Your task to perform on an android device: add a label to a message in the gmail app Image 0: 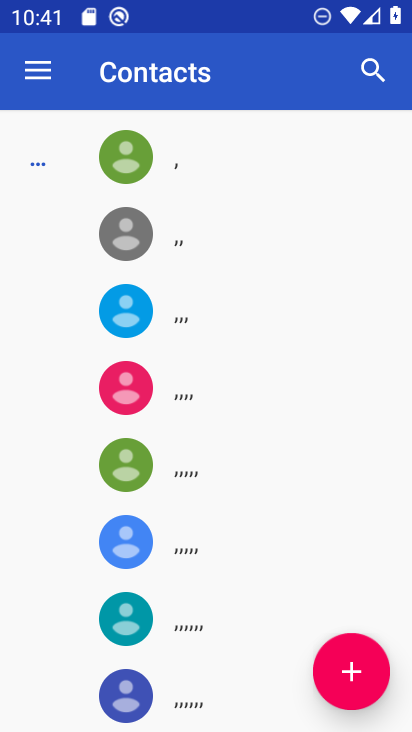
Step 0: press home button
Your task to perform on an android device: add a label to a message in the gmail app Image 1: 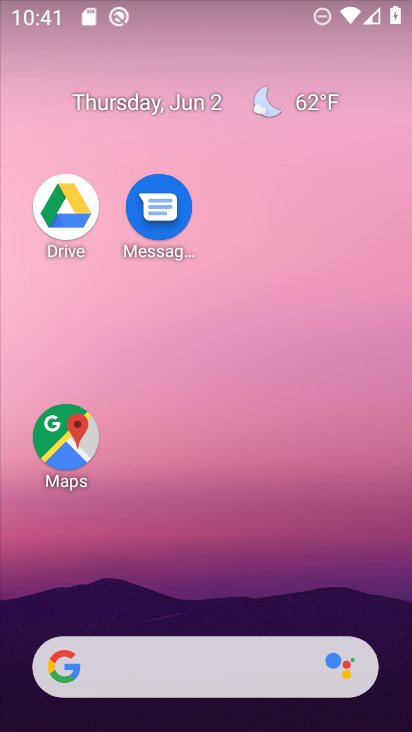
Step 1: drag from (205, 633) to (296, 53)
Your task to perform on an android device: add a label to a message in the gmail app Image 2: 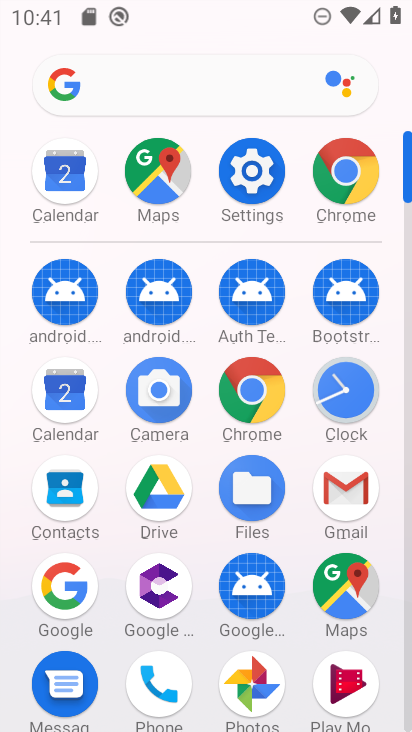
Step 2: click (354, 494)
Your task to perform on an android device: add a label to a message in the gmail app Image 3: 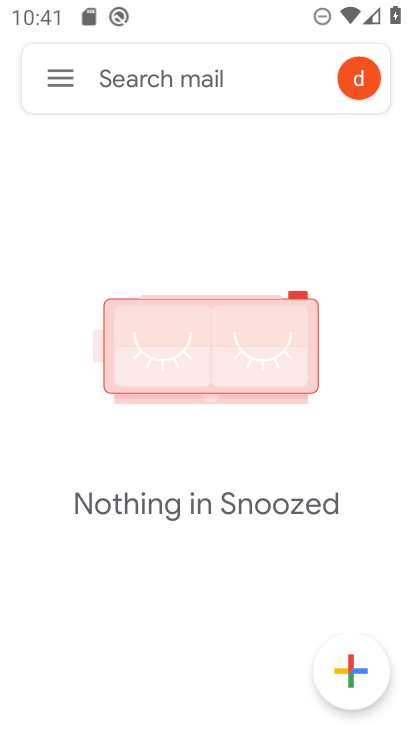
Step 3: task complete